Your task to perform on an android device: check the backup settings in the google photos Image 0: 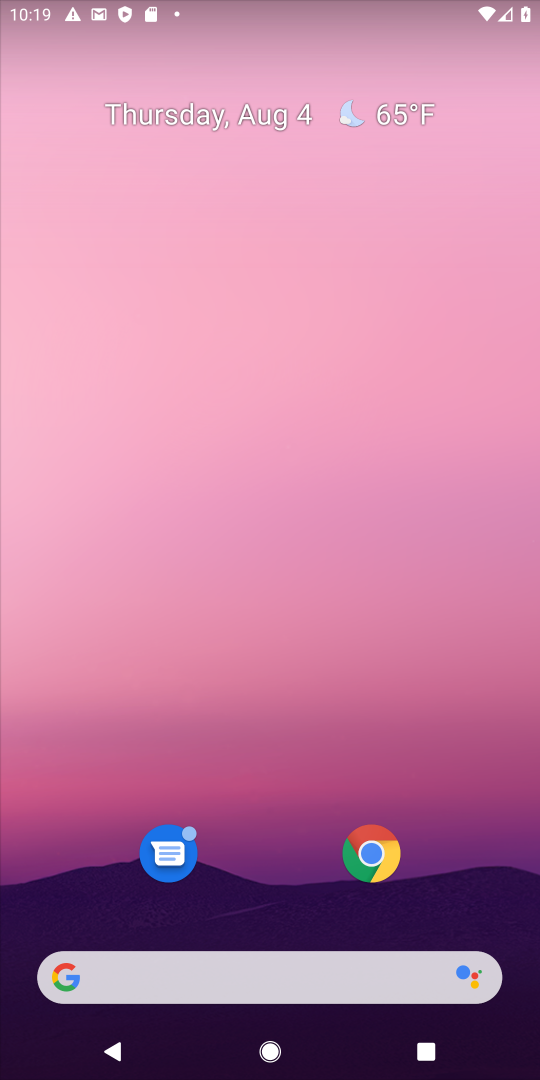
Step 0: drag from (298, 926) to (285, 53)
Your task to perform on an android device: check the backup settings in the google photos Image 1: 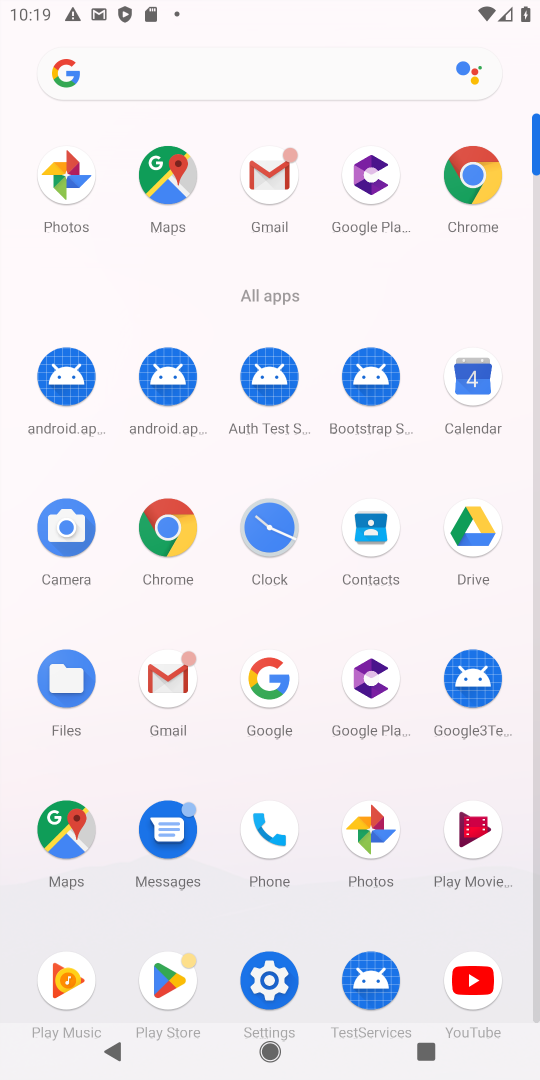
Step 1: click (359, 827)
Your task to perform on an android device: check the backup settings in the google photos Image 2: 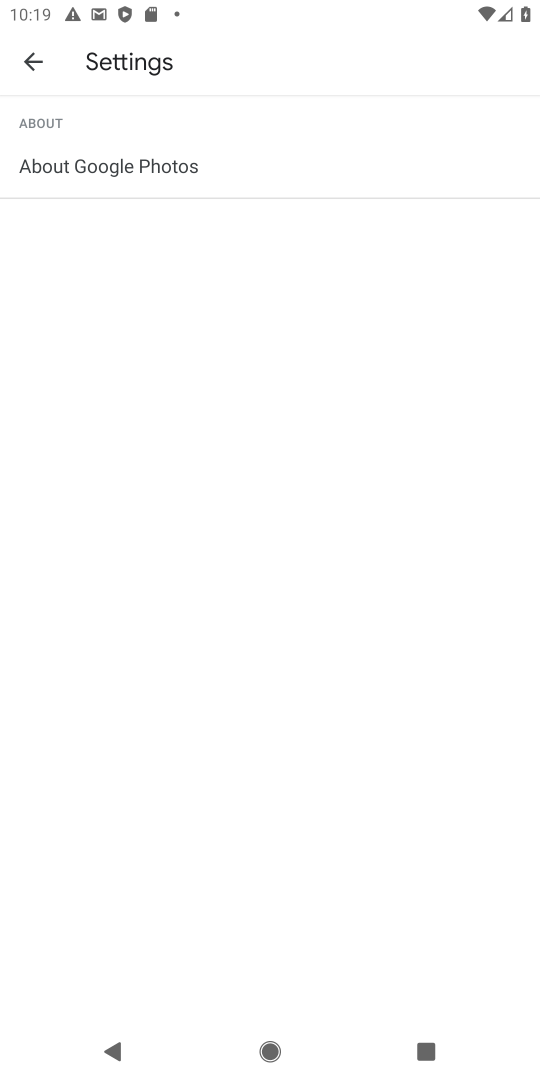
Step 2: click (58, 72)
Your task to perform on an android device: check the backup settings in the google photos Image 3: 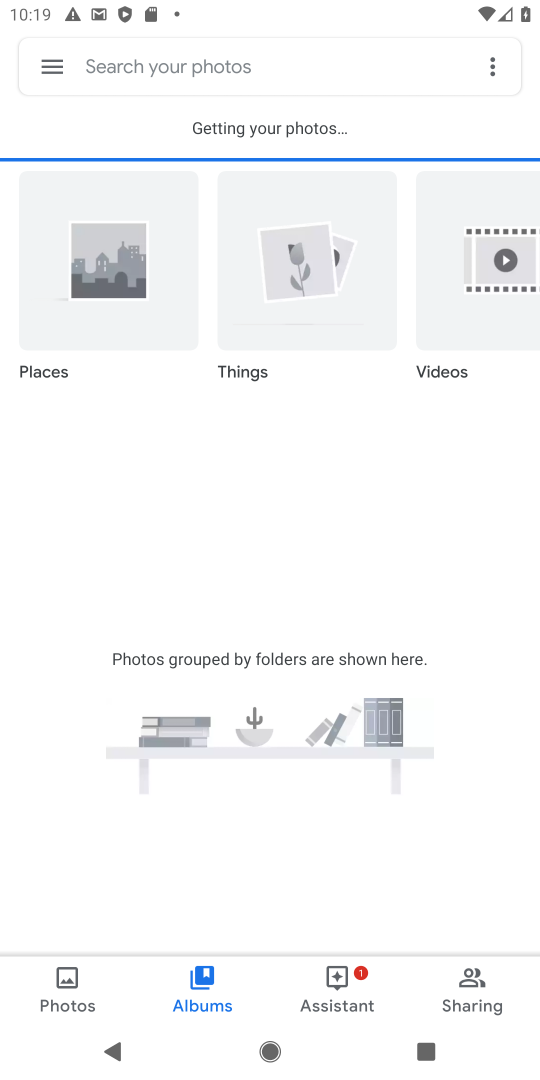
Step 3: click (58, 72)
Your task to perform on an android device: check the backup settings in the google photos Image 4: 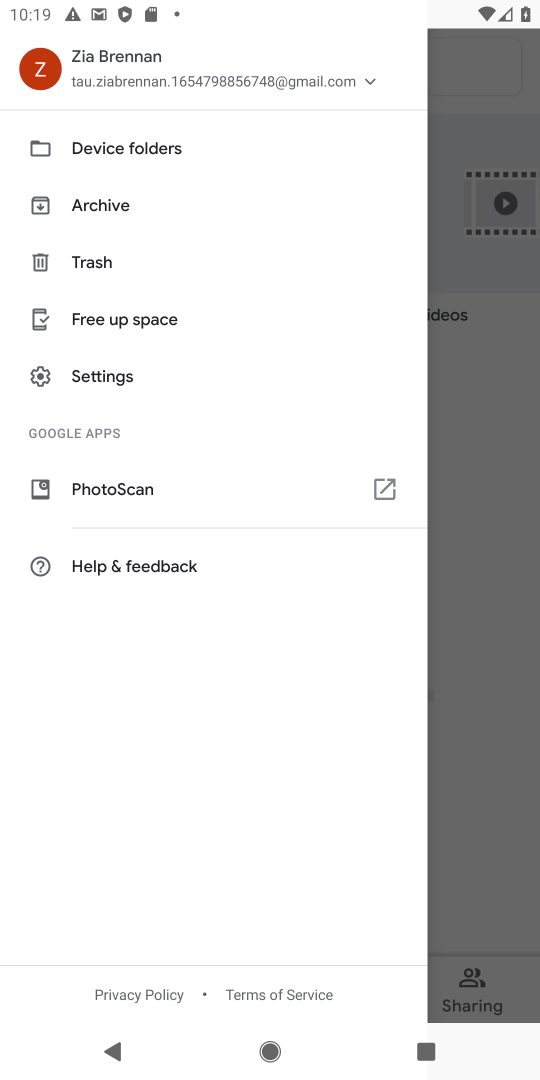
Step 4: click (96, 372)
Your task to perform on an android device: check the backup settings in the google photos Image 5: 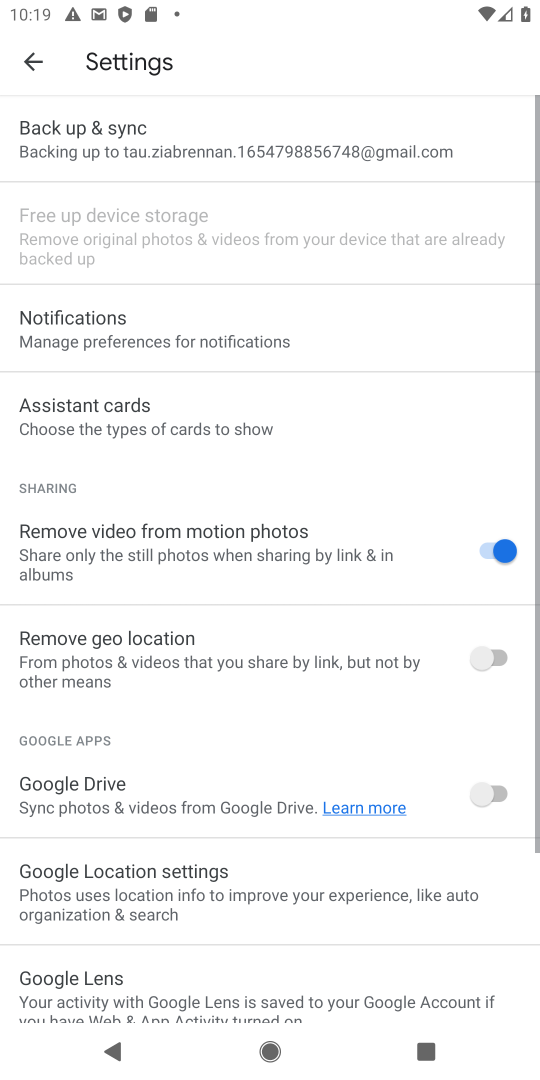
Step 5: click (78, 136)
Your task to perform on an android device: check the backup settings in the google photos Image 6: 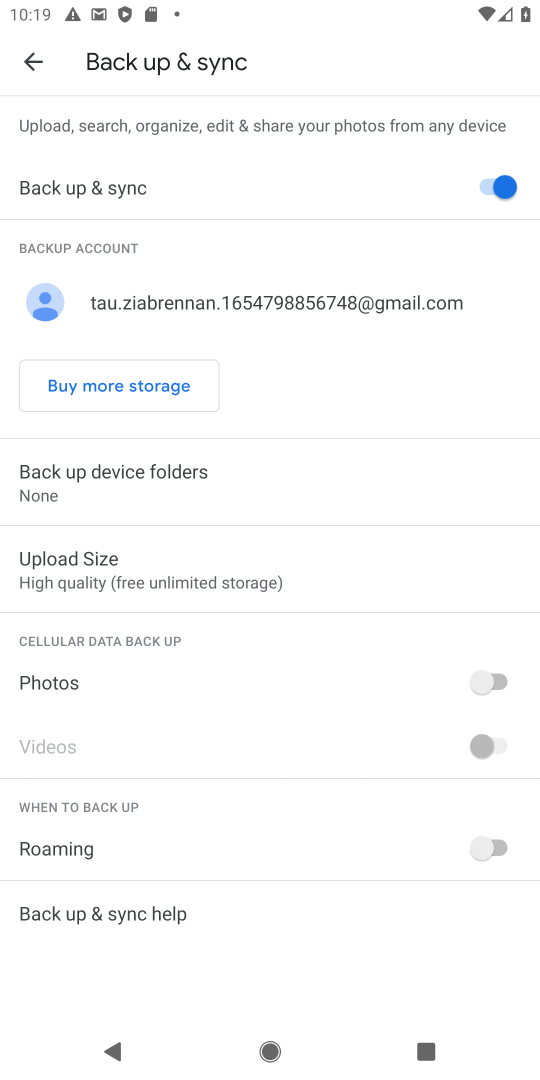
Step 6: task complete